Your task to perform on an android device: What's the latest video from GameXplain? Image 0: 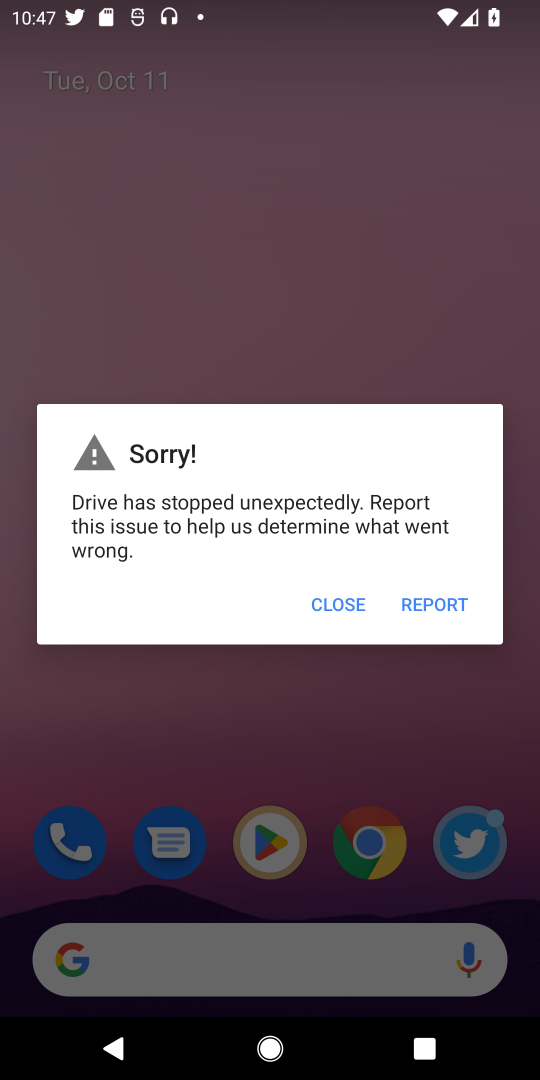
Step 0: press home button
Your task to perform on an android device: What's the latest video from GameXplain? Image 1: 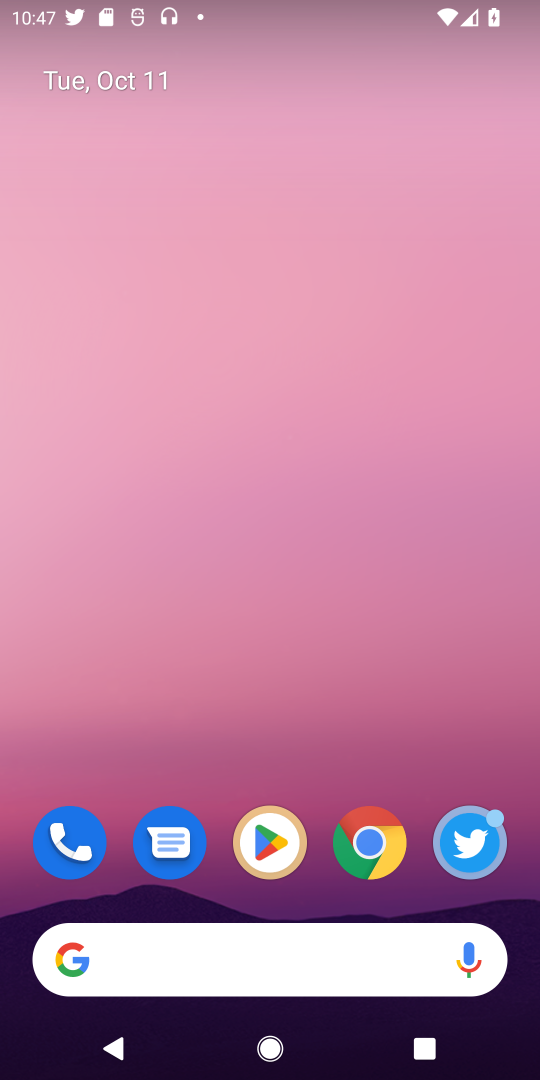
Step 1: click (378, 846)
Your task to perform on an android device: What's the latest video from GameXplain? Image 2: 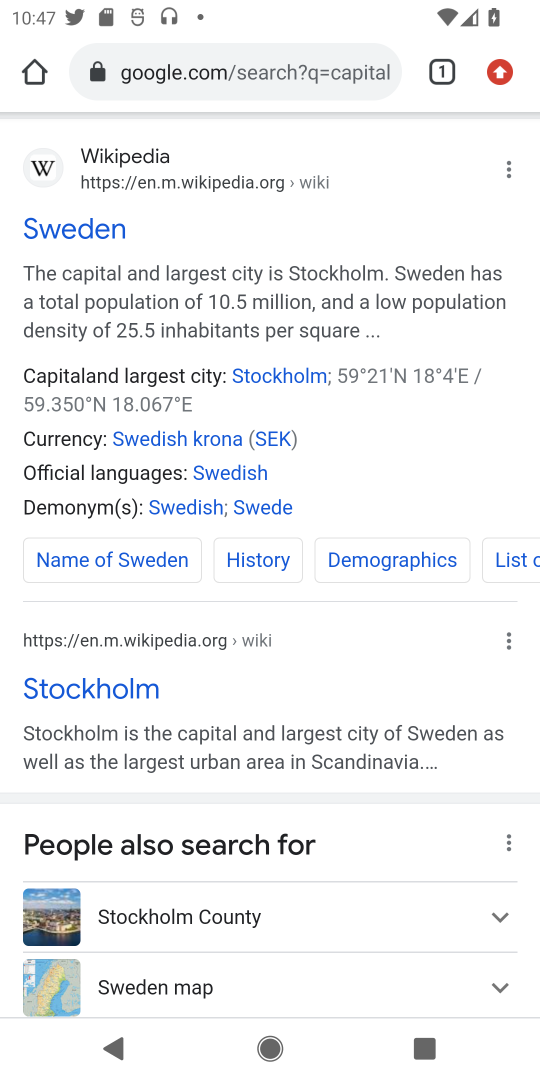
Step 2: click (236, 56)
Your task to perform on an android device: What's the latest video from GameXplain? Image 3: 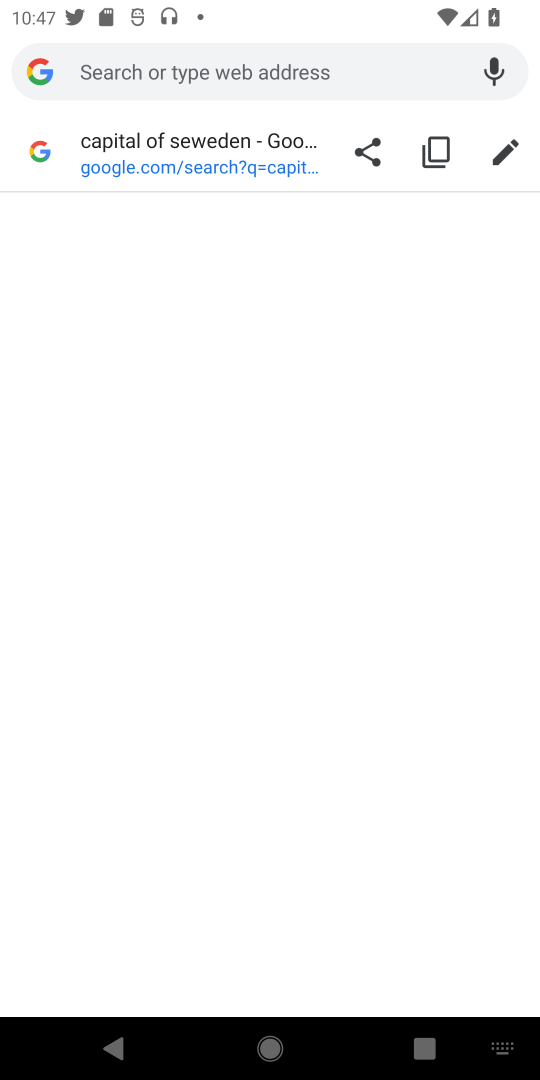
Step 3: type "latest video from gamexplain"
Your task to perform on an android device: What's the latest video from GameXplain? Image 4: 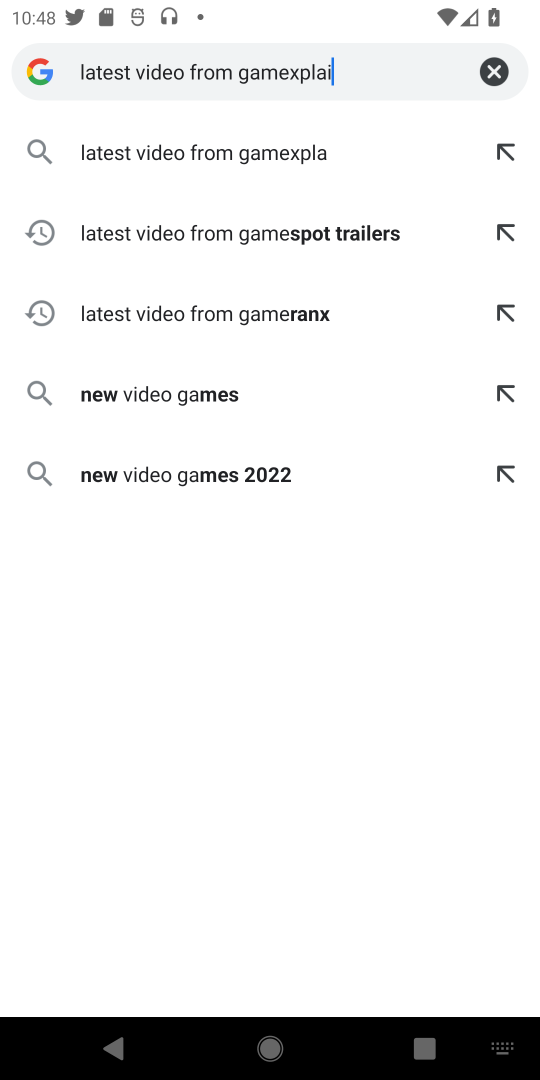
Step 4: type ""
Your task to perform on an android device: What's the latest video from GameXplain? Image 5: 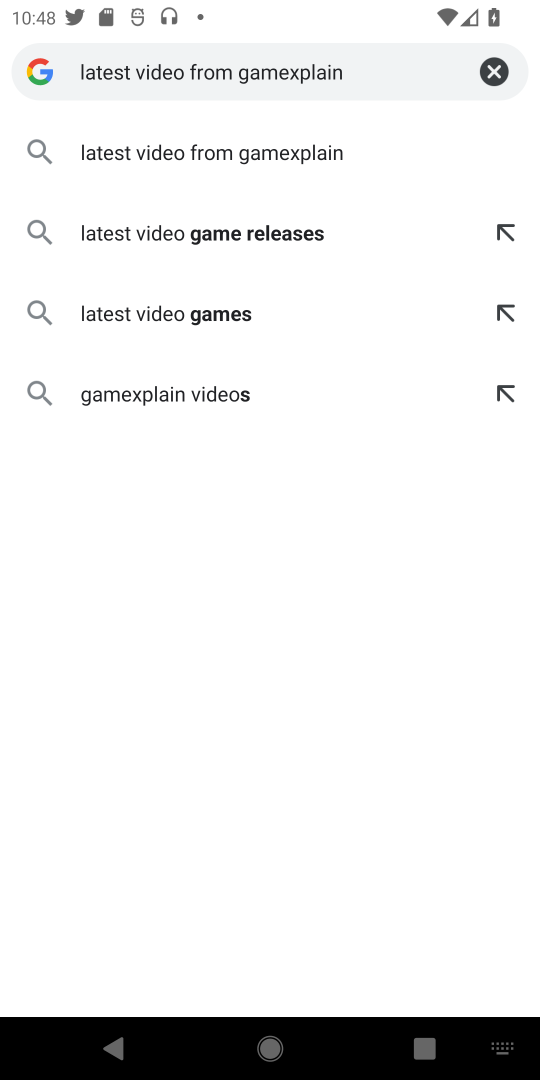
Step 5: click (297, 152)
Your task to perform on an android device: What's the latest video from GameXplain? Image 6: 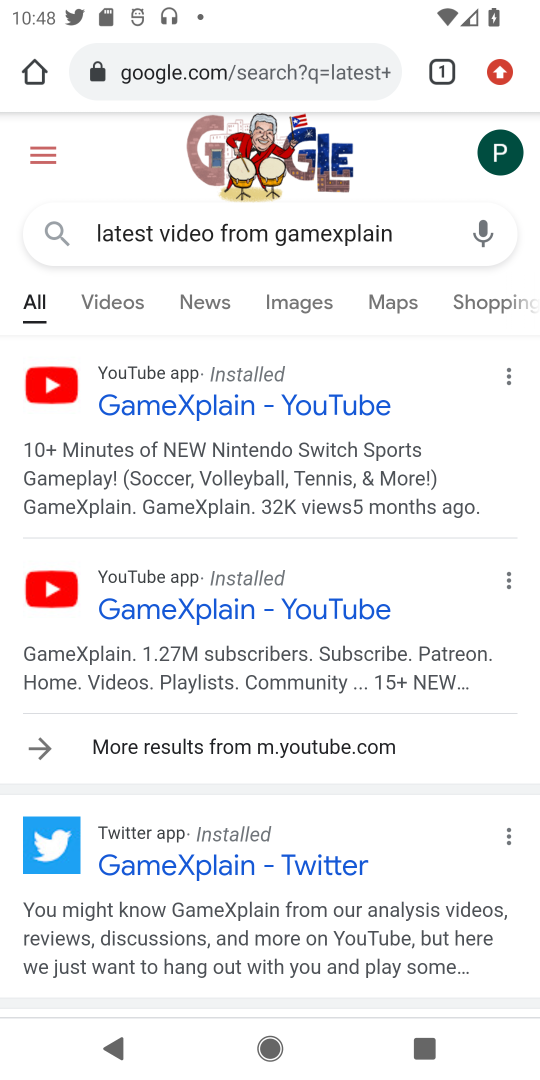
Step 6: click (217, 409)
Your task to perform on an android device: What's the latest video from GameXplain? Image 7: 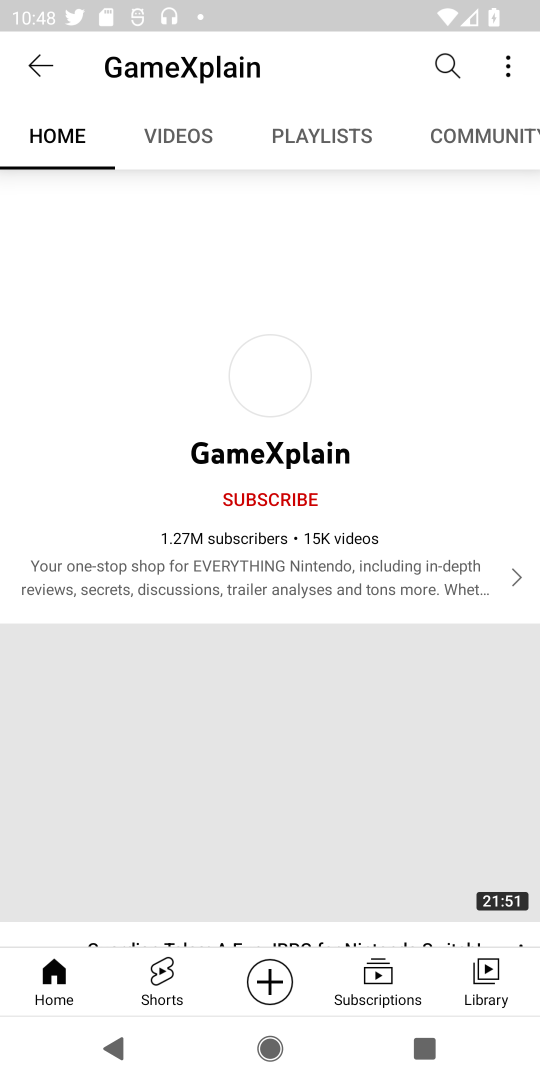
Step 7: drag from (101, 748) to (266, 247)
Your task to perform on an android device: What's the latest video from GameXplain? Image 8: 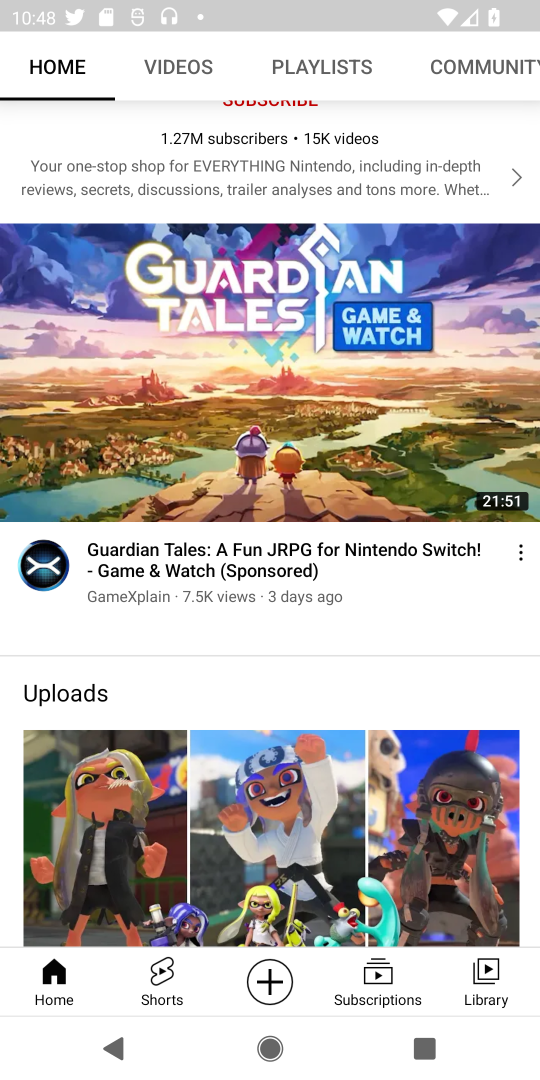
Step 8: drag from (308, 671) to (357, 365)
Your task to perform on an android device: What's the latest video from GameXplain? Image 9: 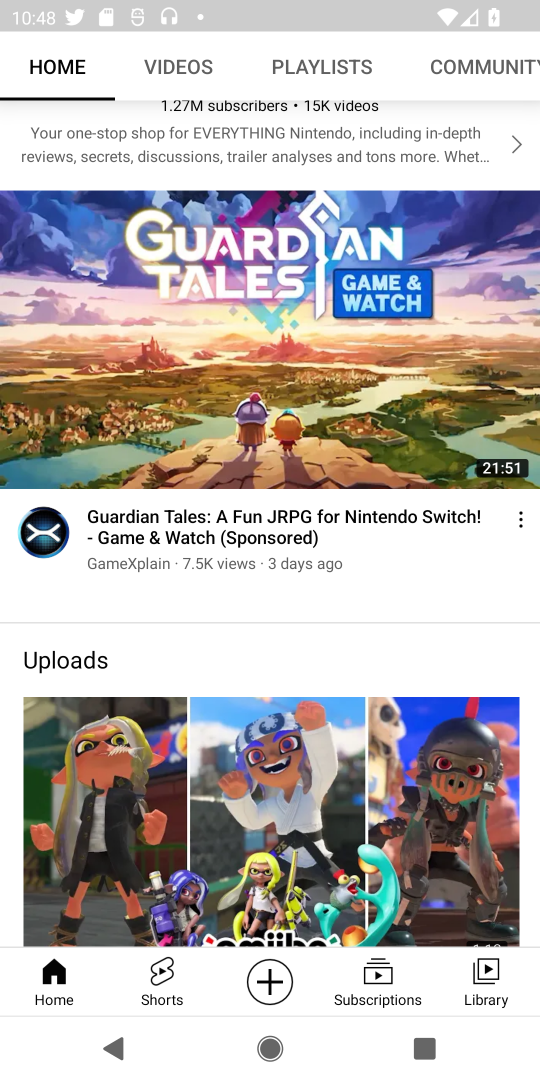
Step 9: drag from (256, 792) to (322, 270)
Your task to perform on an android device: What's the latest video from GameXplain? Image 10: 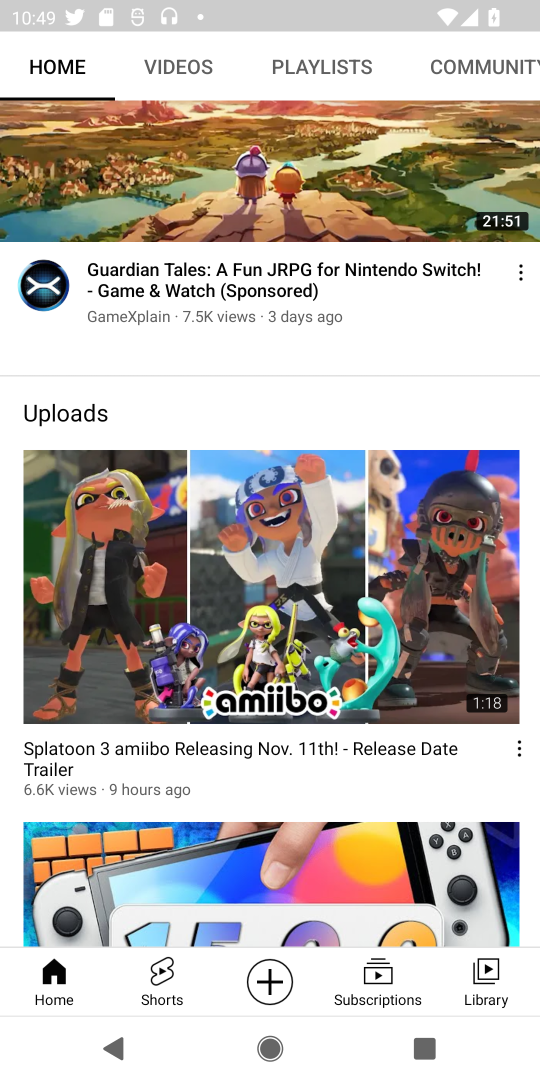
Step 10: drag from (180, 851) to (338, 486)
Your task to perform on an android device: What's the latest video from GameXplain? Image 11: 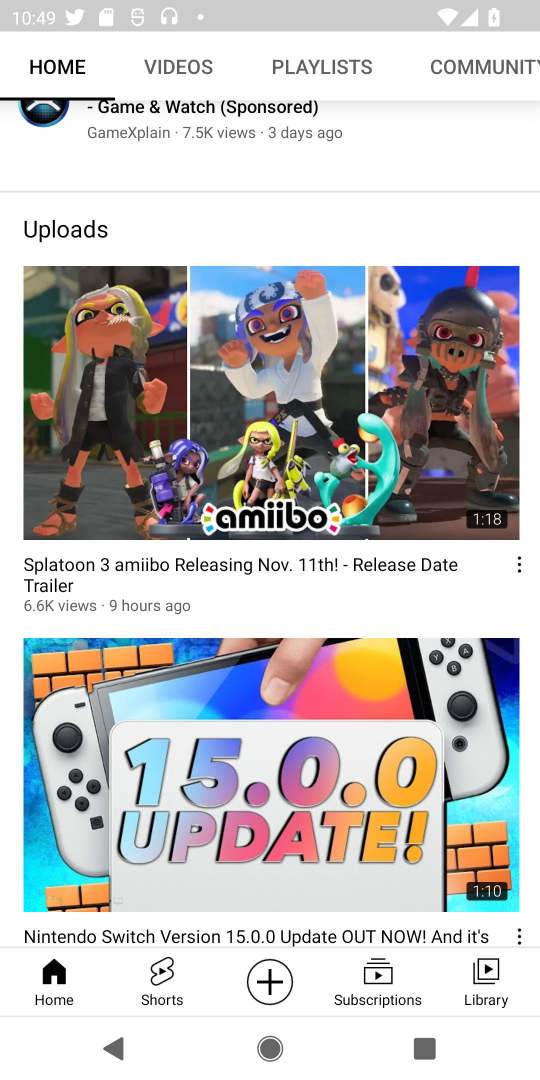
Step 11: click (282, 648)
Your task to perform on an android device: What's the latest video from GameXplain? Image 12: 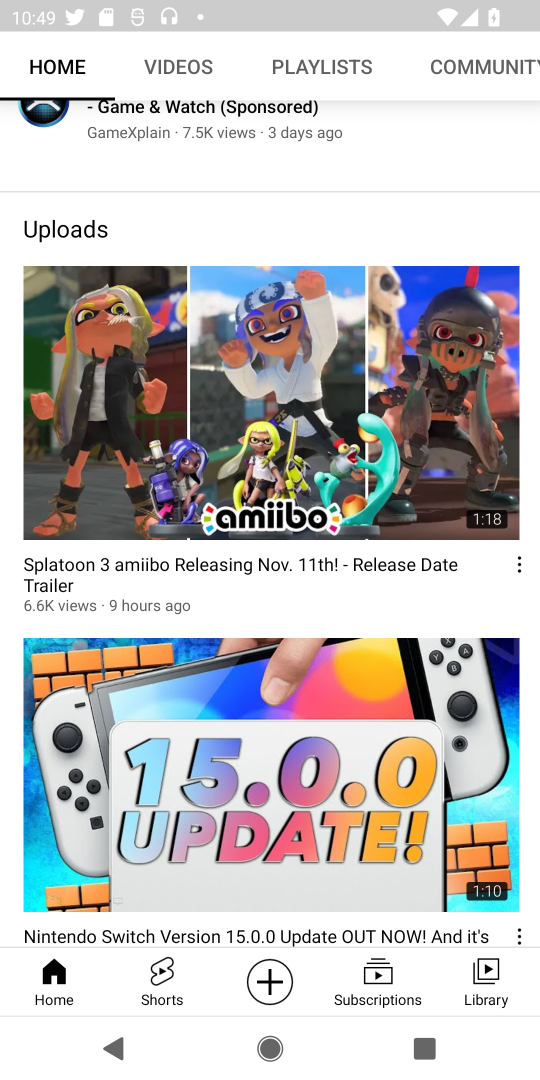
Step 12: task complete